Your task to perform on an android device: open sync settings in chrome Image 0: 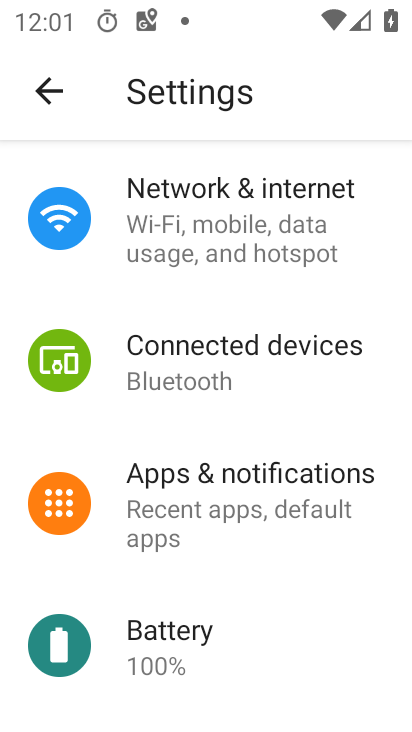
Step 0: press home button
Your task to perform on an android device: open sync settings in chrome Image 1: 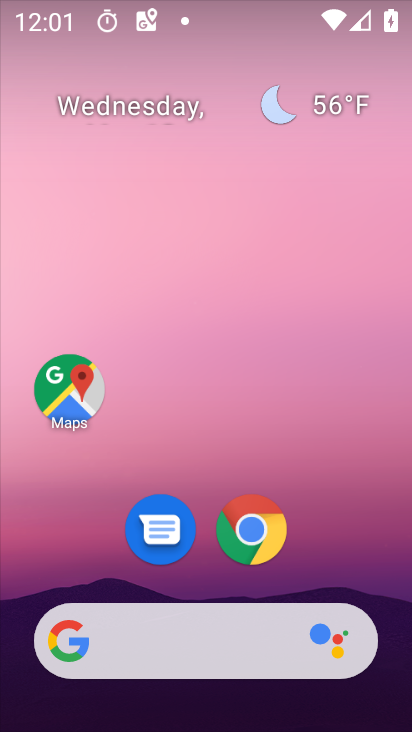
Step 1: click (256, 522)
Your task to perform on an android device: open sync settings in chrome Image 2: 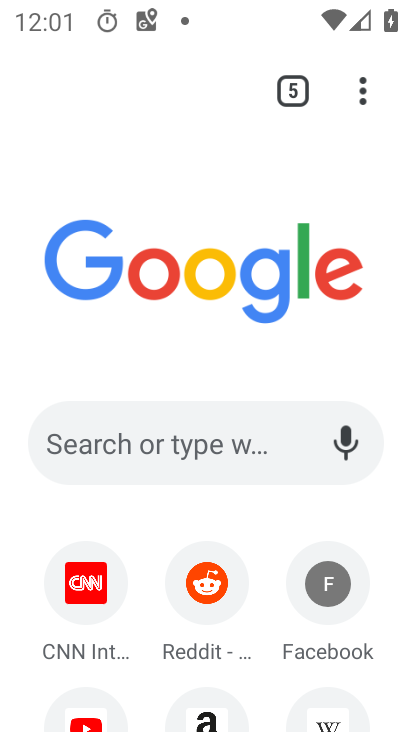
Step 2: click (375, 93)
Your task to perform on an android device: open sync settings in chrome Image 3: 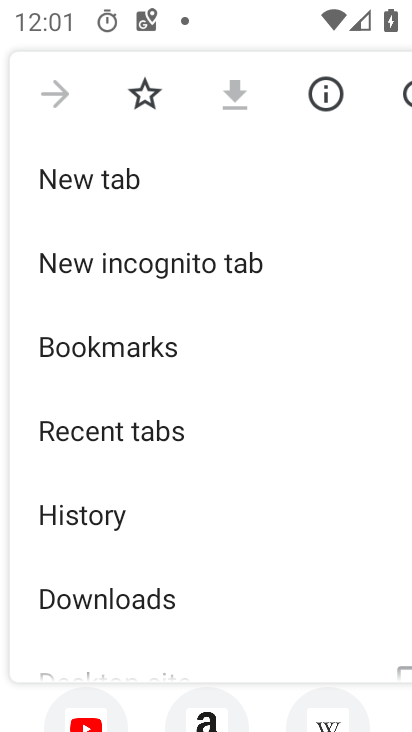
Step 3: drag from (86, 642) to (225, 68)
Your task to perform on an android device: open sync settings in chrome Image 4: 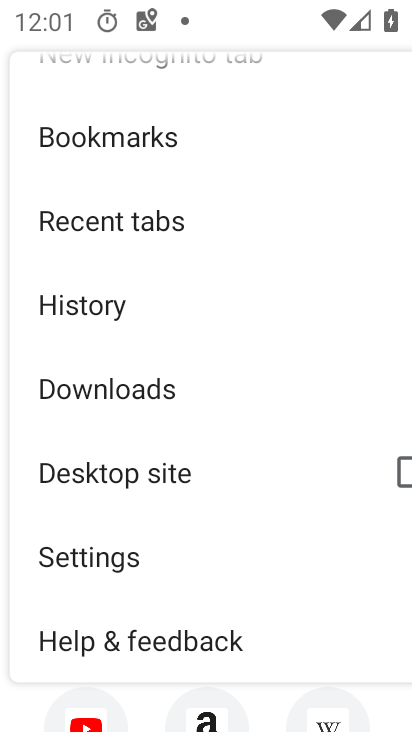
Step 4: click (137, 570)
Your task to perform on an android device: open sync settings in chrome Image 5: 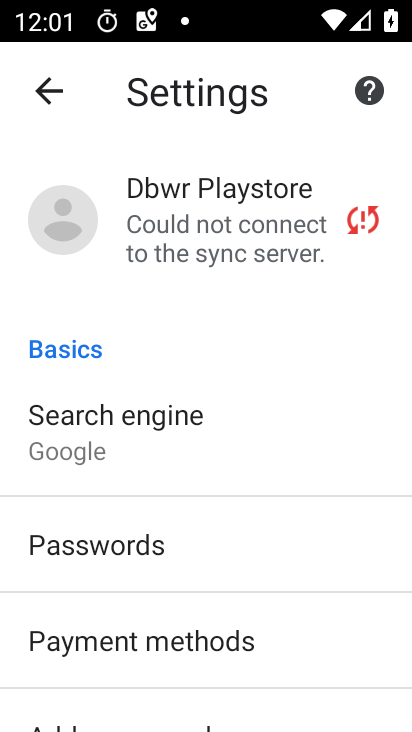
Step 5: click (171, 243)
Your task to perform on an android device: open sync settings in chrome Image 6: 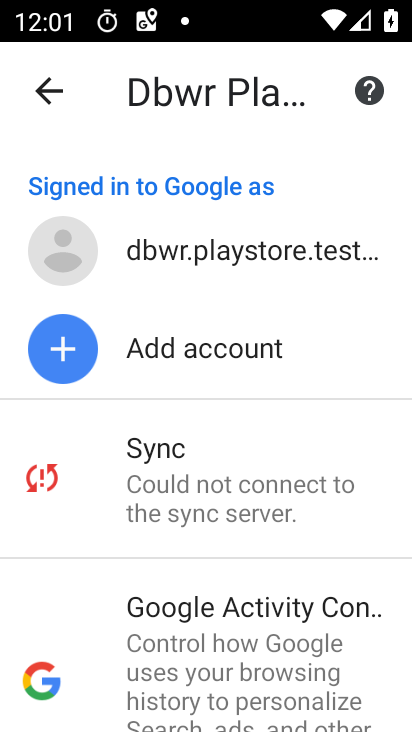
Step 6: click (203, 458)
Your task to perform on an android device: open sync settings in chrome Image 7: 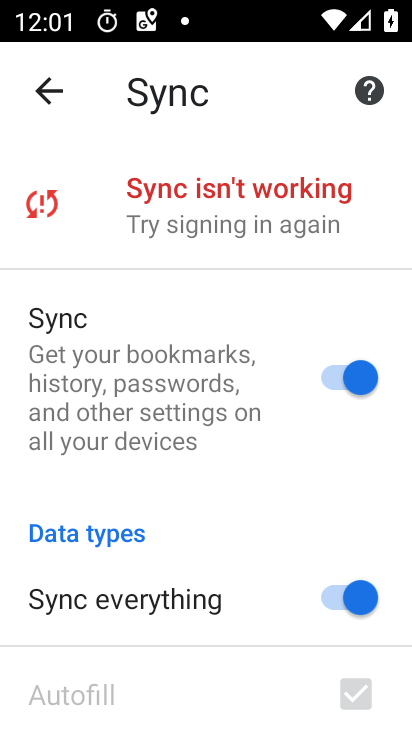
Step 7: task complete